Your task to perform on an android device: turn off location Image 0: 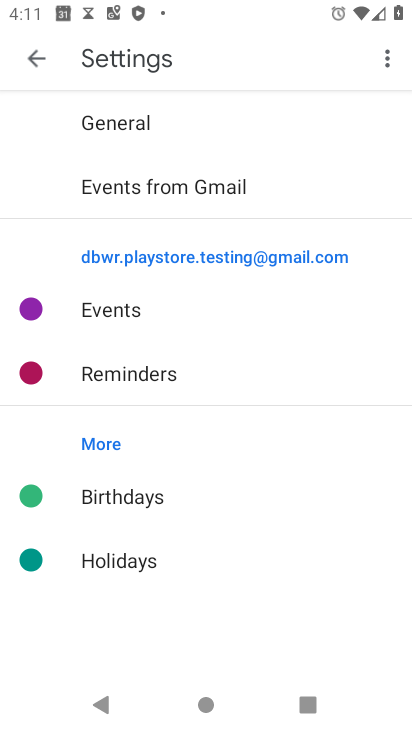
Step 0: press home button
Your task to perform on an android device: turn off location Image 1: 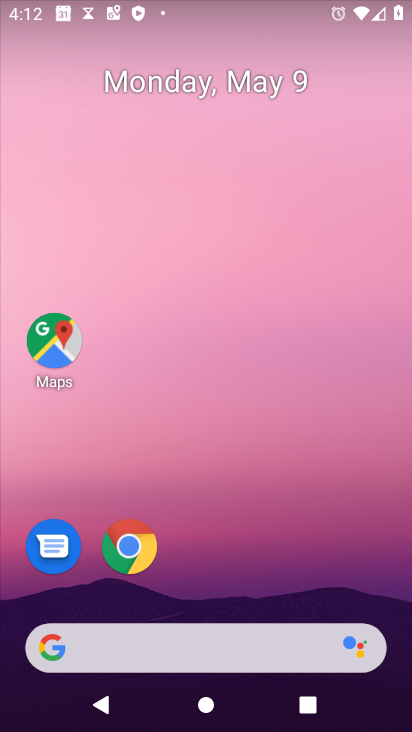
Step 1: drag from (263, 532) to (236, 0)
Your task to perform on an android device: turn off location Image 2: 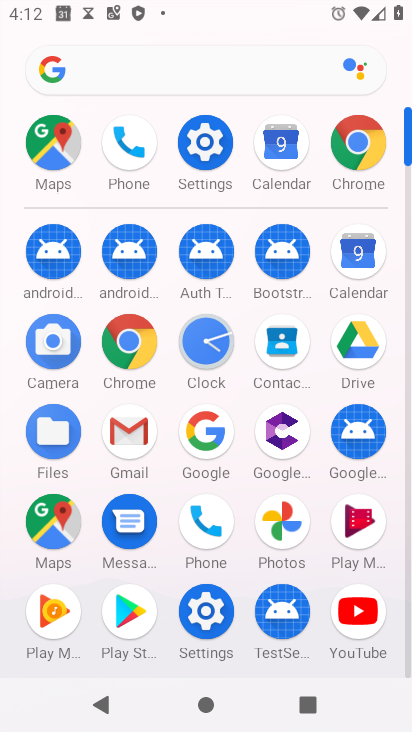
Step 2: click (202, 201)
Your task to perform on an android device: turn off location Image 3: 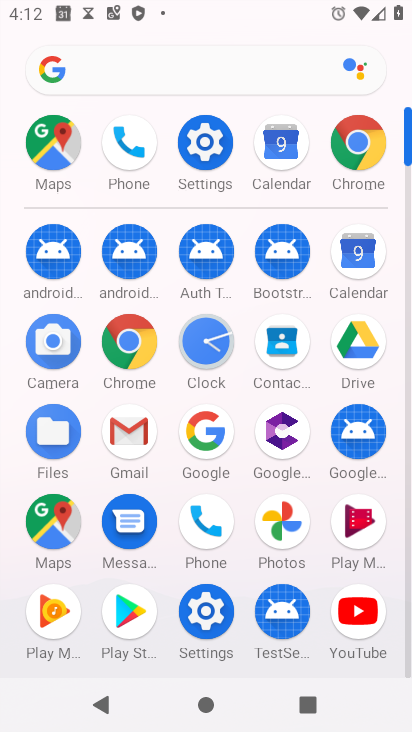
Step 3: click (195, 163)
Your task to perform on an android device: turn off location Image 4: 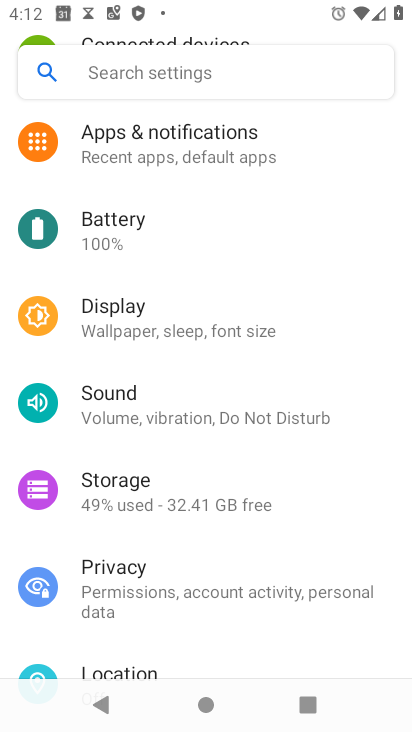
Step 4: drag from (180, 578) to (155, 242)
Your task to perform on an android device: turn off location Image 5: 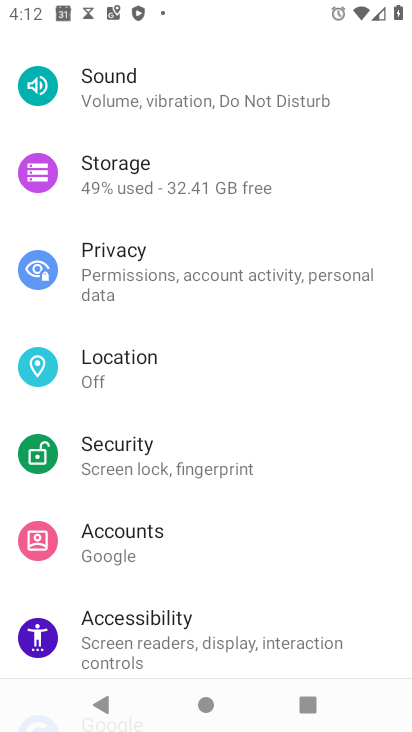
Step 5: click (153, 365)
Your task to perform on an android device: turn off location Image 6: 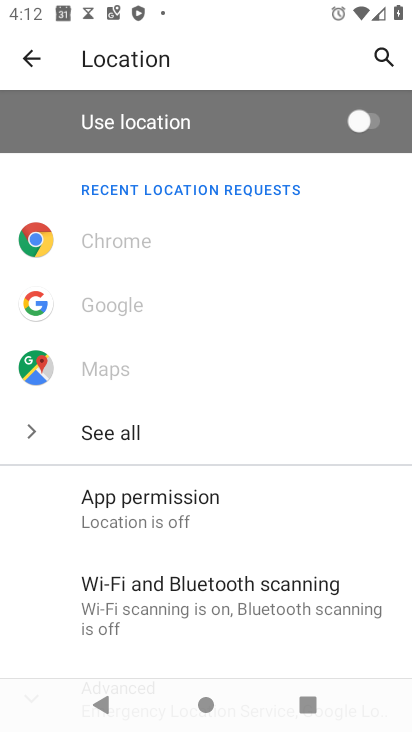
Step 6: task complete